Your task to perform on an android device: refresh tabs in the chrome app Image 0: 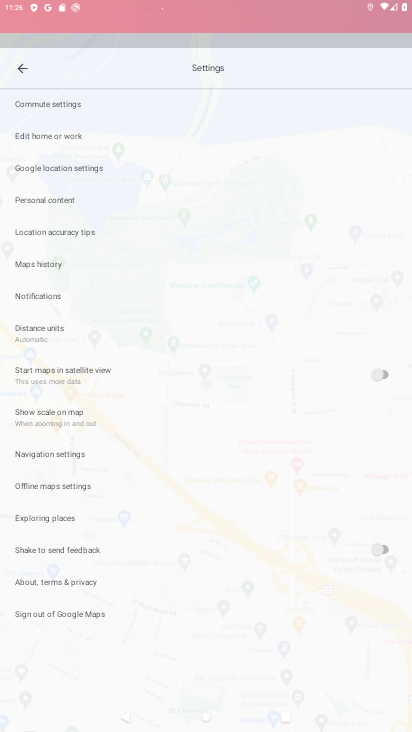
Step 0: click (148, 108)
Your task to perform on an android device: refresh tabs in the chrome app Image 1: 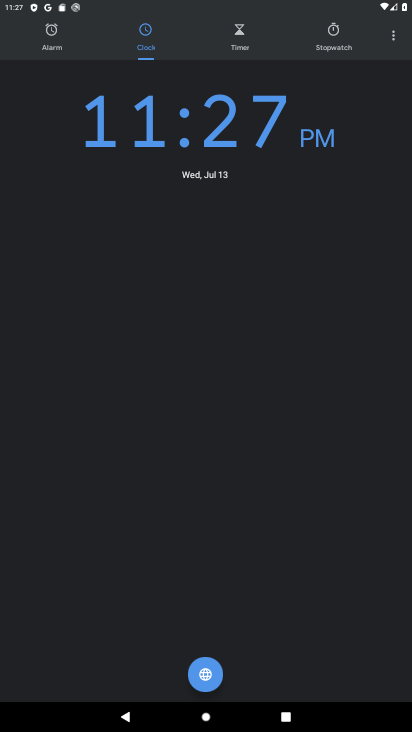
Step 1: press home button
Your task to perform on an android device: refresh tabs in the chrome app Image 2: 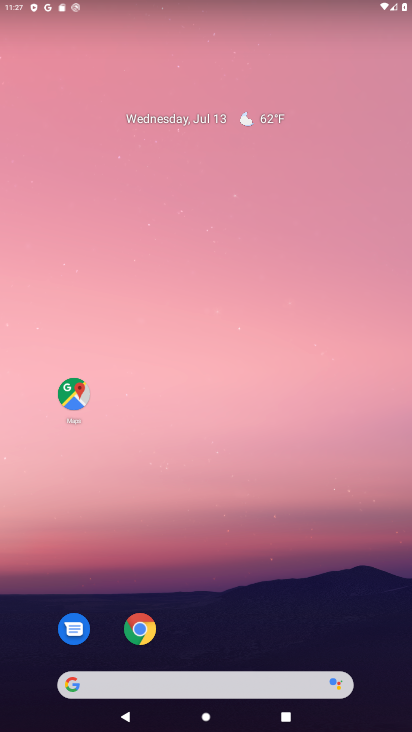
Step 2: click (144, 634)
Your task to perform on an android device: refresh tabs in the chrome app Image 3: 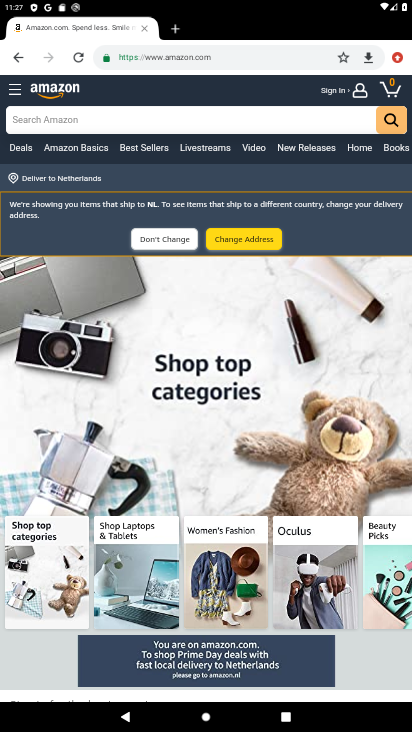
Step 3: click (78, 57)
Your task to perform on an android device: refresh tabs in the chrome app Image 4: 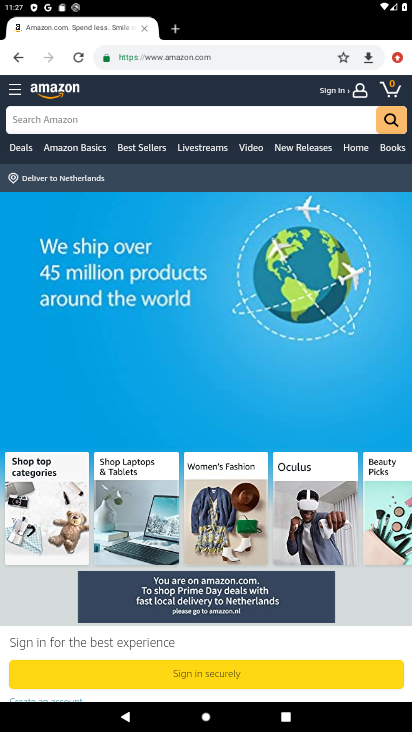
Step 4: task complete